Your task to perform on an android device: Go to network settings Image 0: 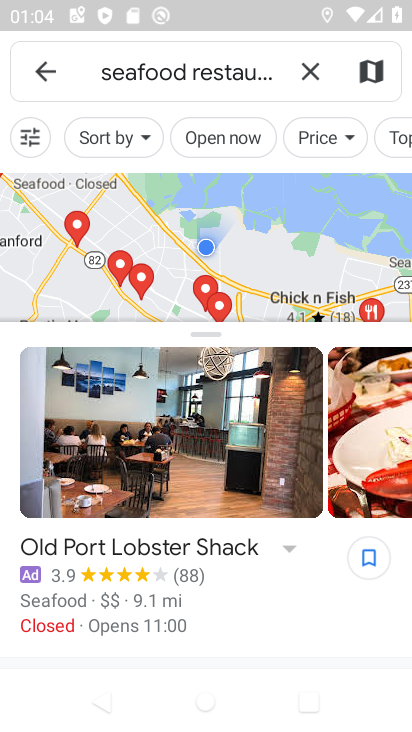
Step 0: press home button
Your task to perform on an android device: Go to network settings Image 1: 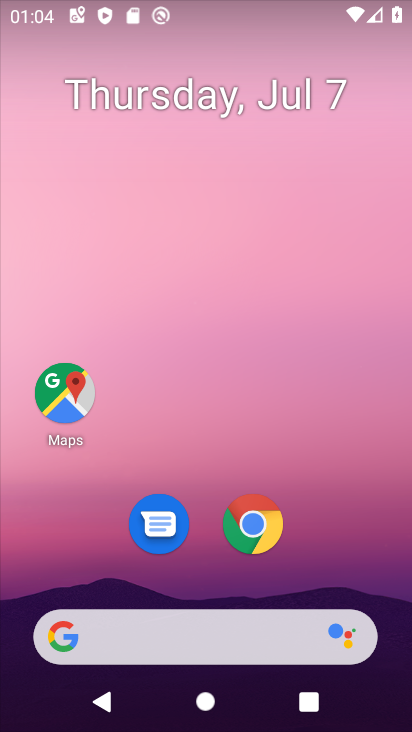
Step 1: drag from (254, 468) to (272, 1)
Your task to perform on an android device: Go to network settings Image 2: 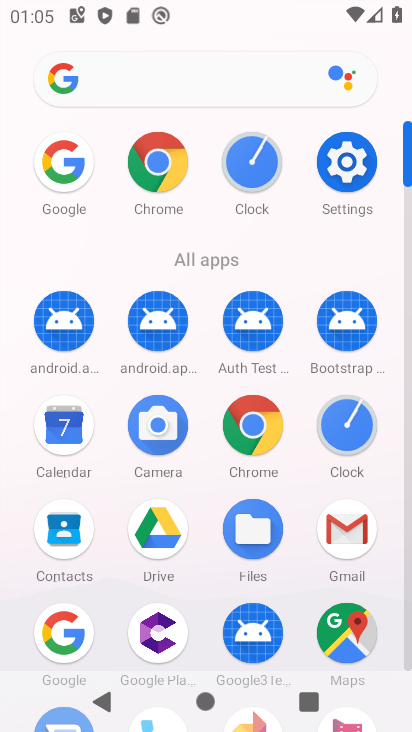
Step 2: click (345, 158)
Your task to perform on an android device: Go to network settings Image 3: 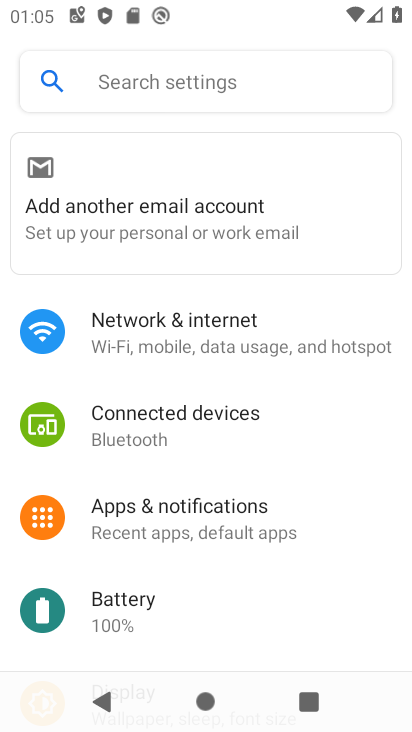
Step 3: click (213, 344)
Your task to perform on an android device: Go to network settings Image 4: 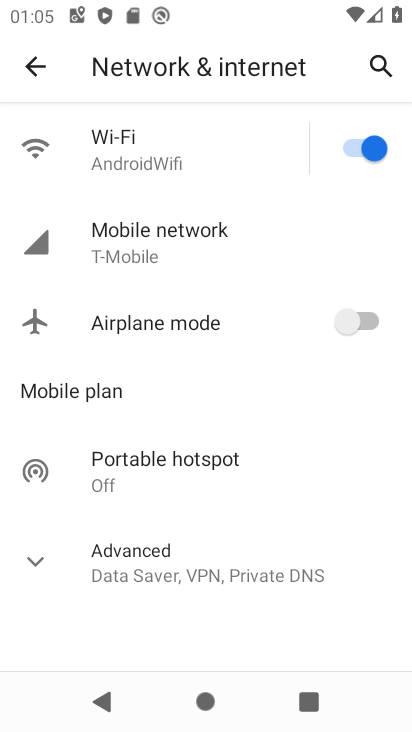
Step 4: task complete